Your task to perform on an android device: Open Chrome and go to settings Image 0: 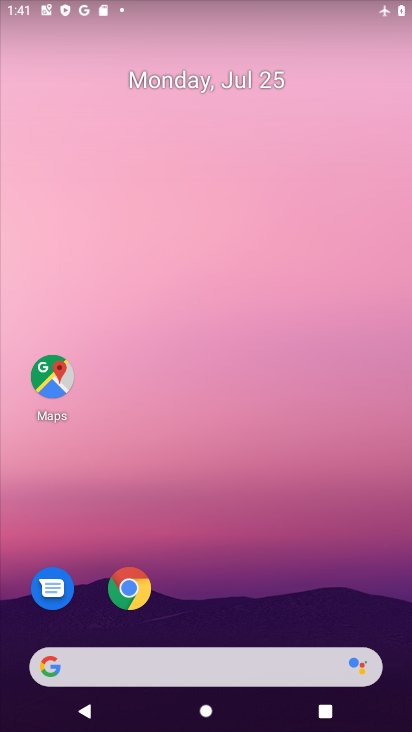
Step 0: drag from (195, 616) to (123, 586)
Your task to perform on an android device: Open Chrome and go to settings Image 1: 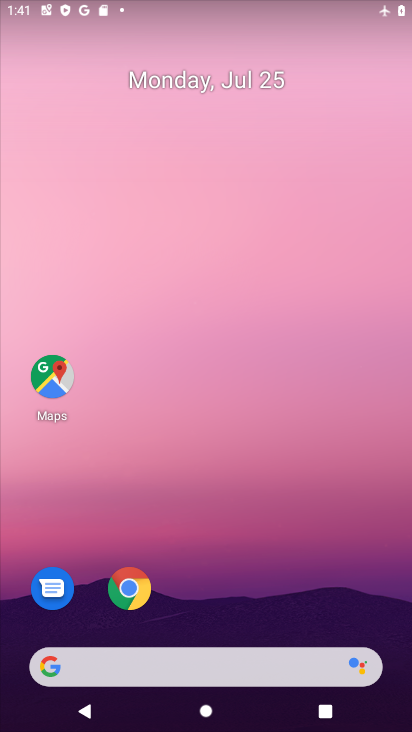
Step 1: click (135, 589)
Your task to perform on an android device: Open Chrome and go to settings Image 2: 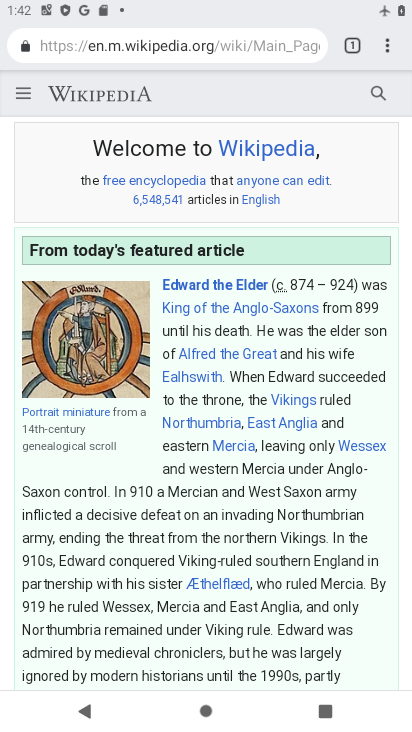
Step 2: click (384, 50)
Your task to perform on an android device: Open Chrome and go to settings Image 3: 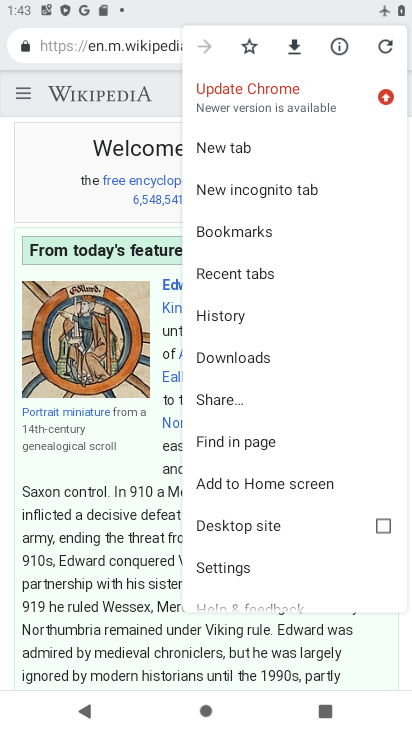
Step 3: click (225, 561)
Your task to perform on an android device: Open Chrome and go to settings Image 4: 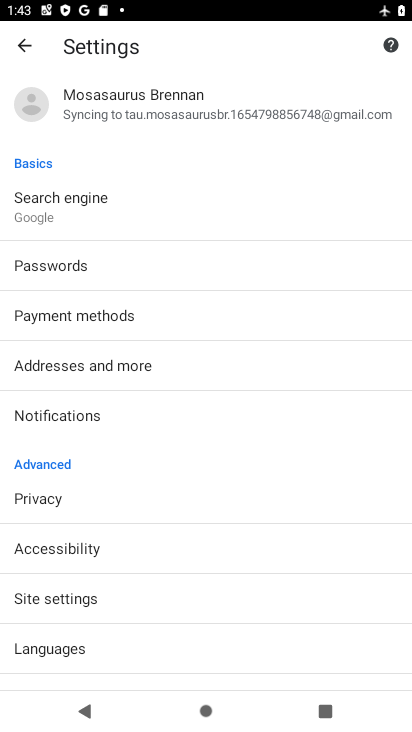
Step 4: task complete